Your task to perform on an android device: Go to Google maps Image 0: 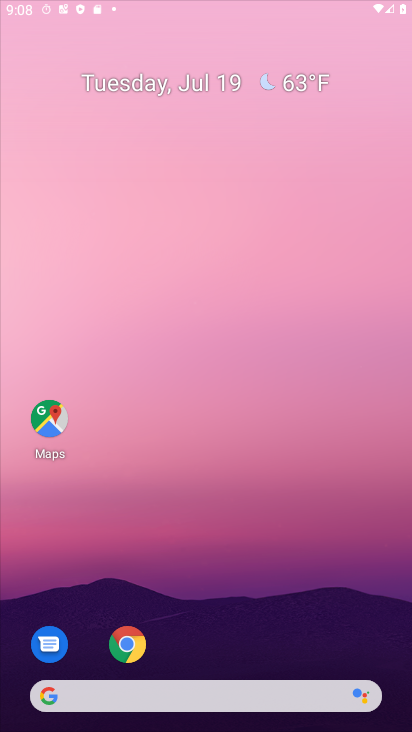
Step 0: drag from (245, 479) to (230, 353)
Your task to perform on an android device: Go to Google maps Image 1: 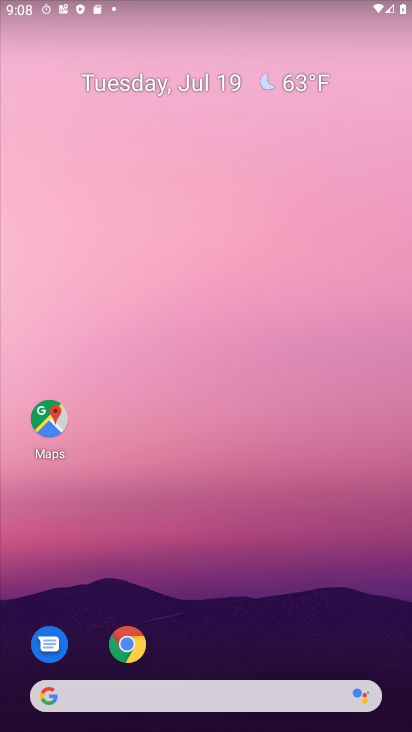
Step 1: drag from (203, 666) to (216, 267)
Your task to perform on an android device: Go to Google maps Image 2: 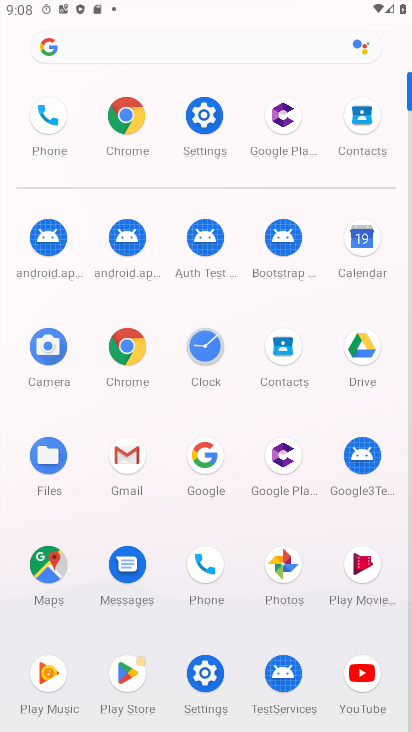
Step 2: click (57, 568)
Your task to perform on an android device: Go to Google maps Image 3: 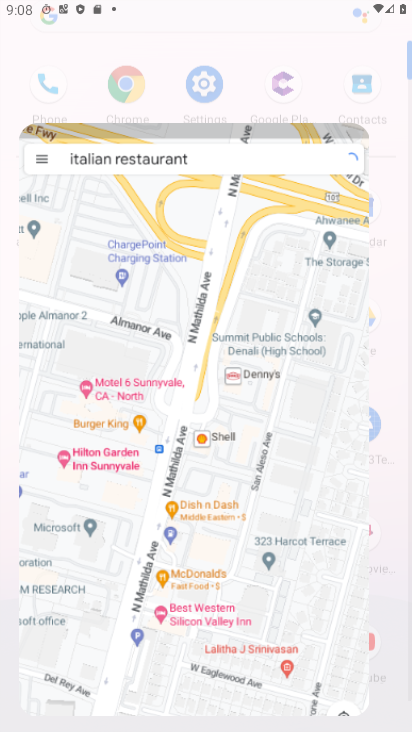
Step 3: click (57, 565)
Your task to perform on an android device: Go to Google maps Image 4: 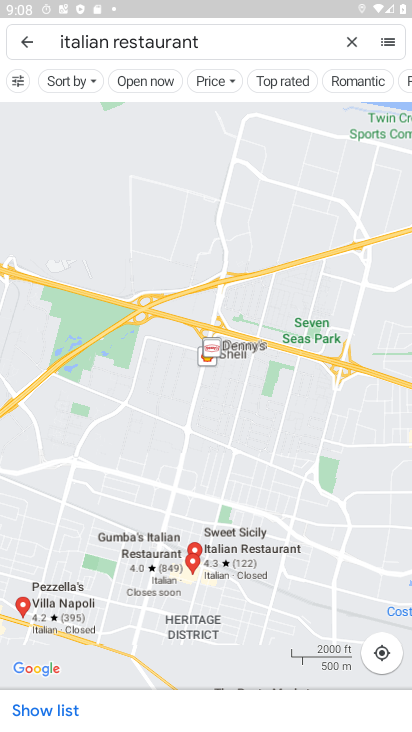
Step 4: click (350, 45)
Your task to perform on an android device: Go to Google maps Image 5: 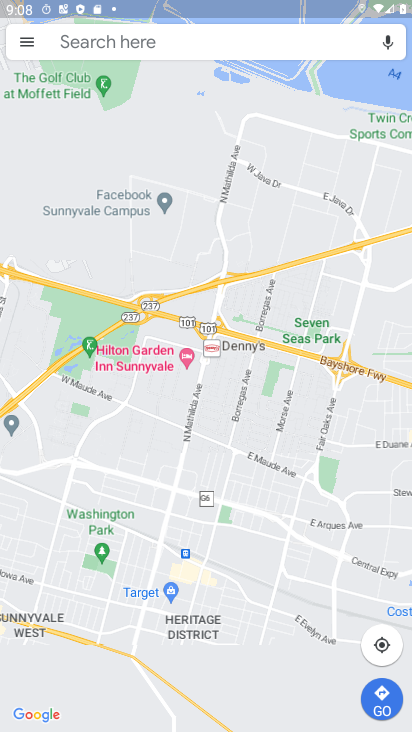
Step 5: task complete